Your task to perform on an android device: open app "Walmart Shopping & Grocery" (install if not already installed), go to login, and select forgot password Image 0: 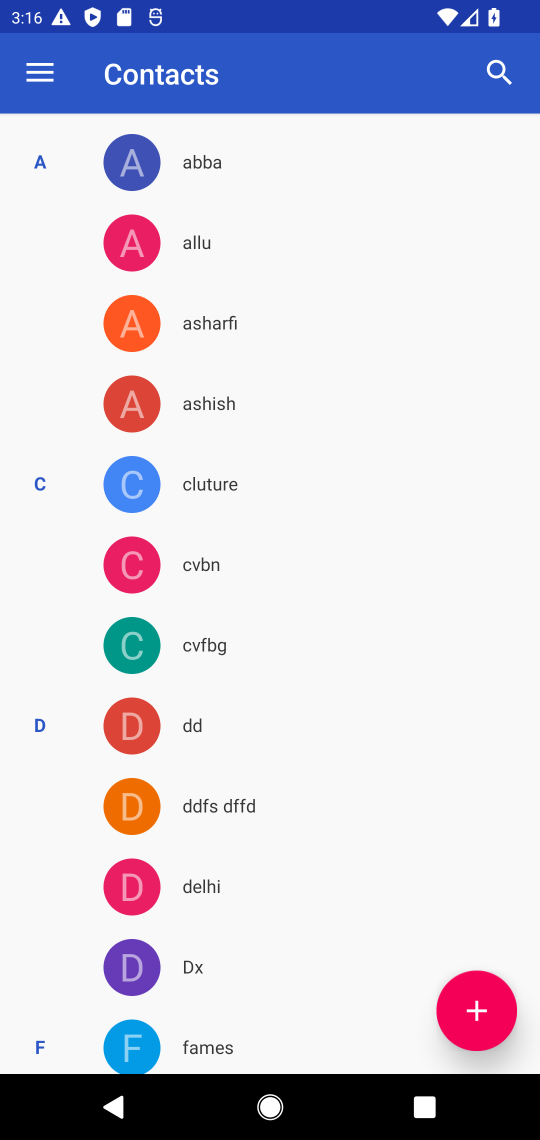
Step 0: press home button
Your task to perform on an android device: open app "Walmart Shopping & Grocery" (install if not already installed), go to login, and select forgot password Image 1: 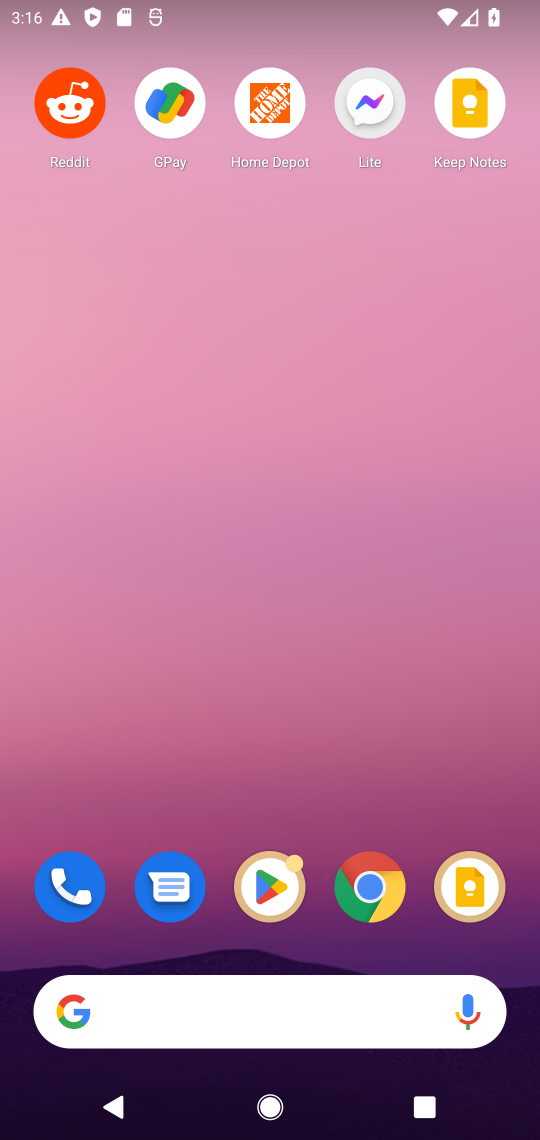
Step 1: click (260, 903)
Your task to perform on an android device: open app "Walmart Shopping & Grocery" (install if not already installed), go to login, and select forgot password Image 2: 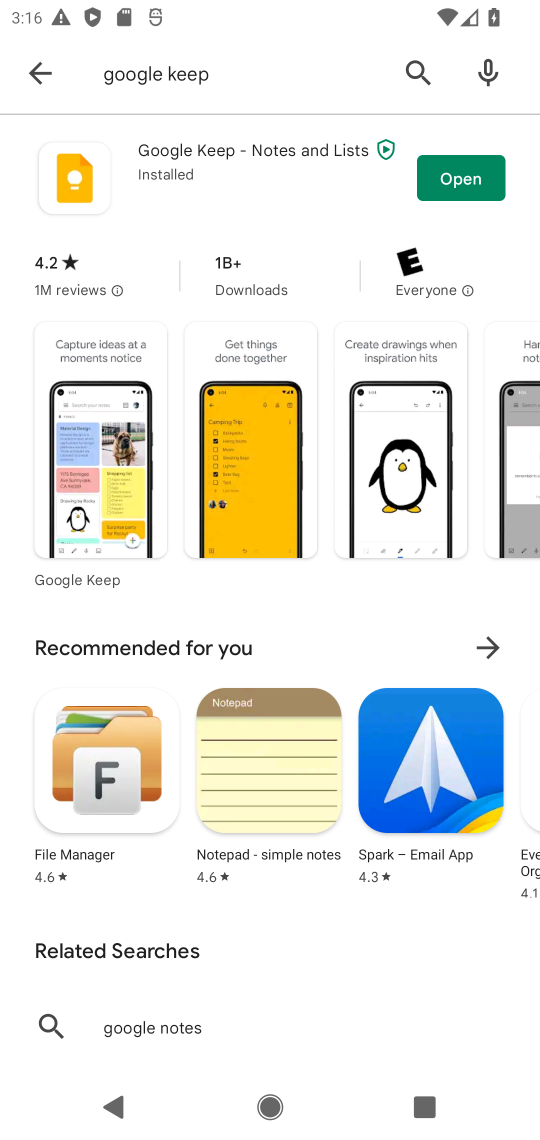
Step 2: click (38, 66)
Your task to perform on an android device: open app "Walmart Shopping & Grocery" (install if not already installed), go to login, and select forgot password Image 3: 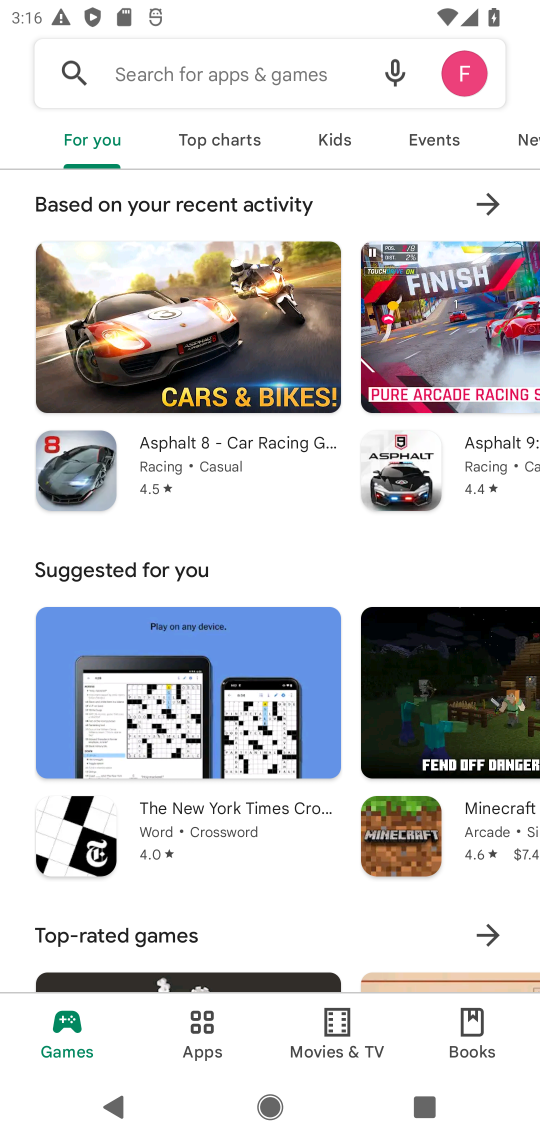
Step 3: click (223, 85)
Your task to perform on an android device: open app "Walmart Shopping & Grocery" (install if not already installed), go to login, and select forgot password Image 4: 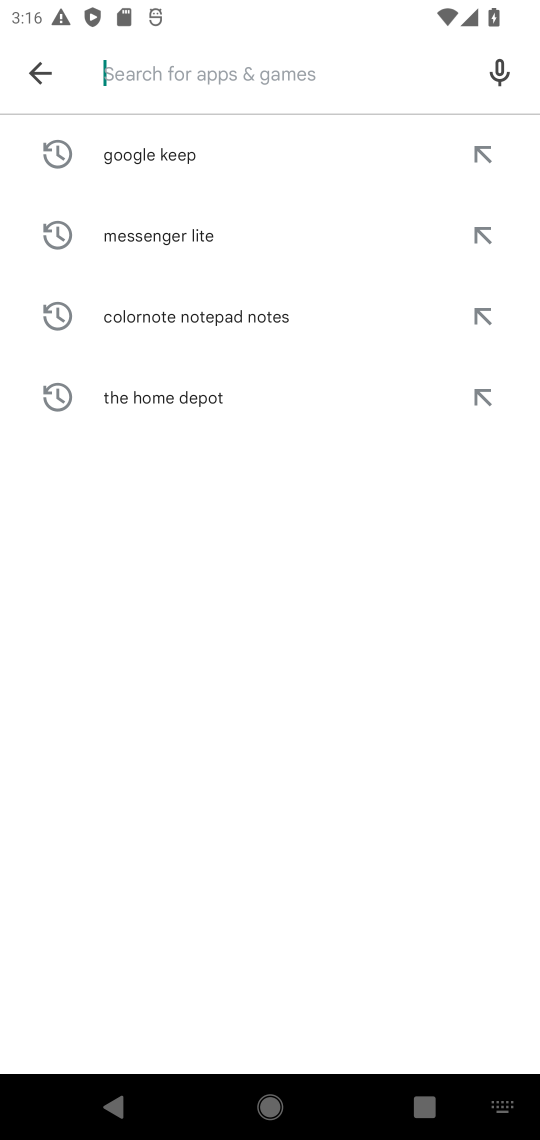
Step 4: type "Walmart Shopping & Grocery"
Your task to perform on an android device: open app "Walmart Shopping & Grocery" (install if not already installed), go to login, and select forgot password Image 5: 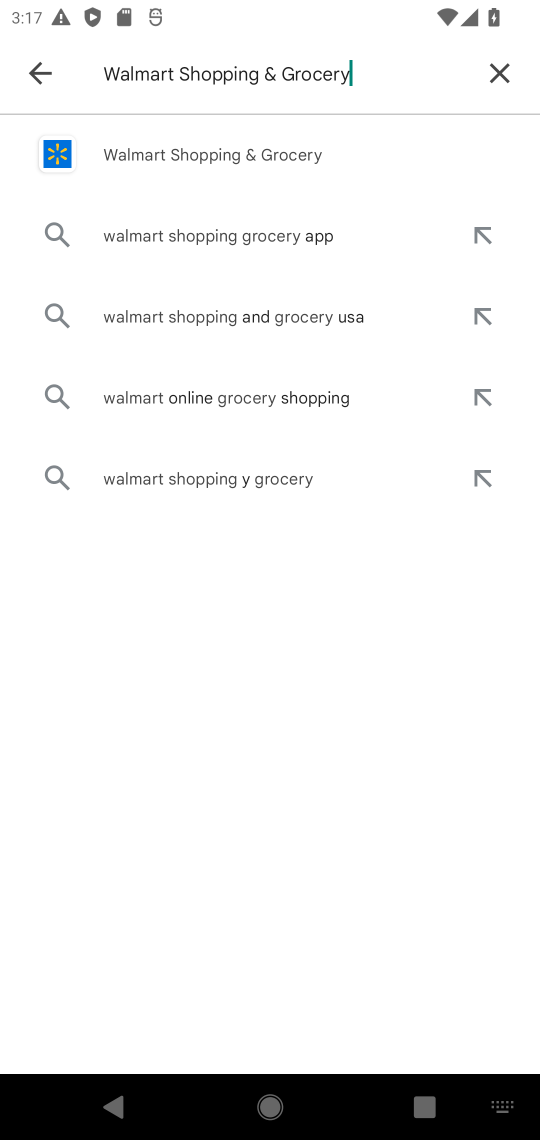
Step 5: click (289, 158)
Your task to perform on an android device: open app "Walmart Shopping & Grocery" (install if not already installed), go to login, and select forgot password Image 6: 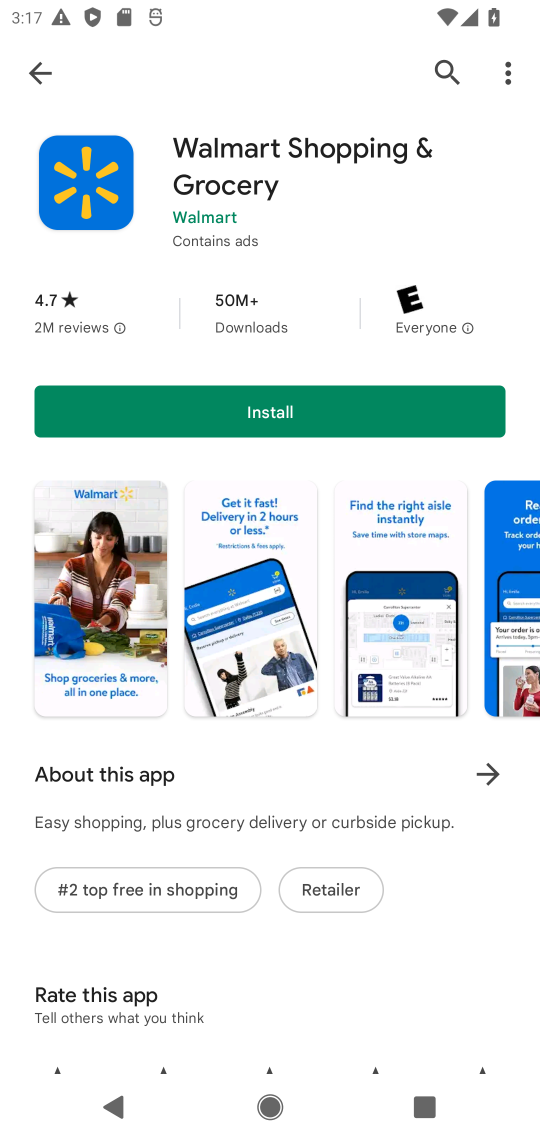
Step 6: click (272, 402)
Your task to perform on an android device: open app "Walmart Shopping & Grocery" (install if not already installed), go to login, and select forgot password Image 7: 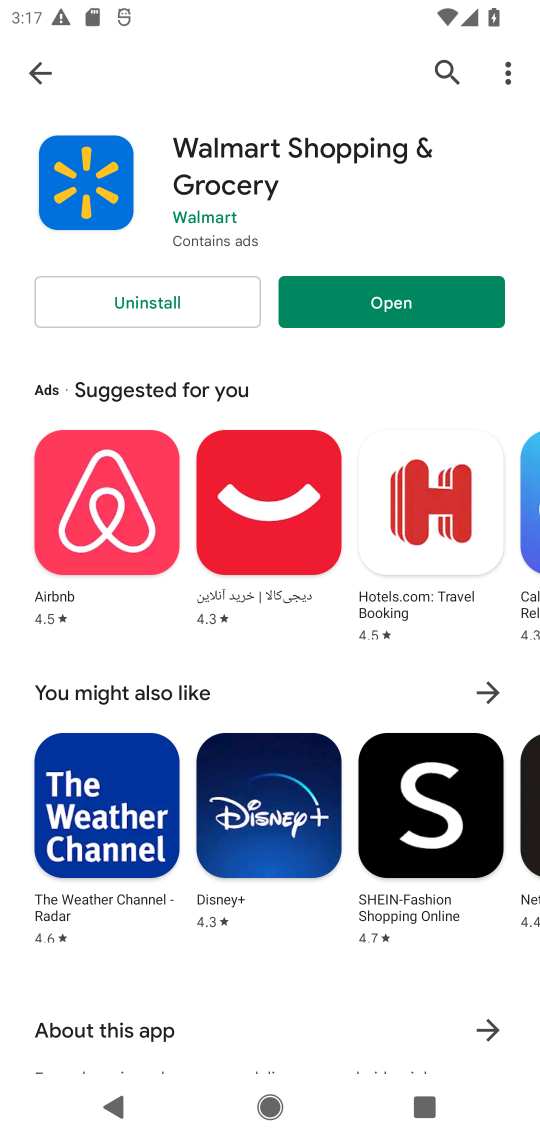
Step 7: click (391, 304)
Your task to perform on an android device: open app "Walmart Shopping & Grocery" (install if not already installed), go to login, and select forgot password Image 8: 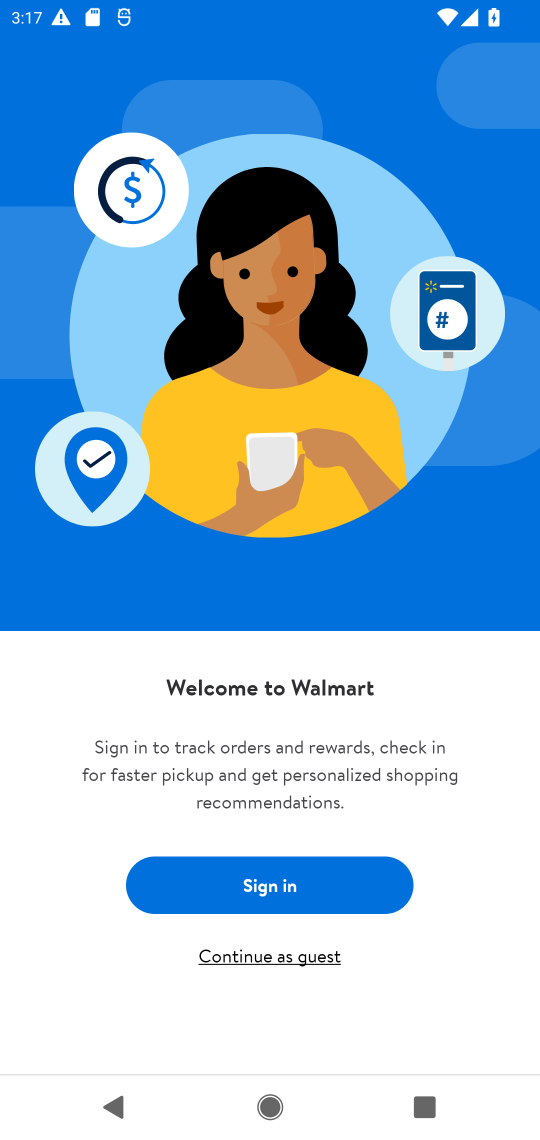
Step 8: task complete